Your task to perform on an android device: Go to display settings Image 0: 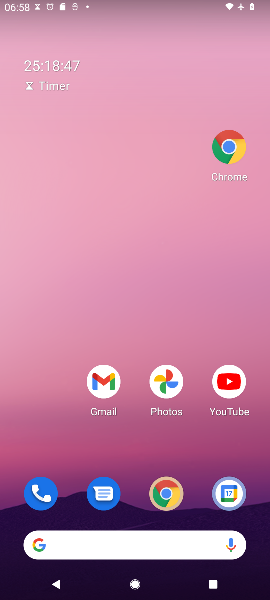
Step 0: press home button
Your task to perform on an android device: Go to display settings Image 1: 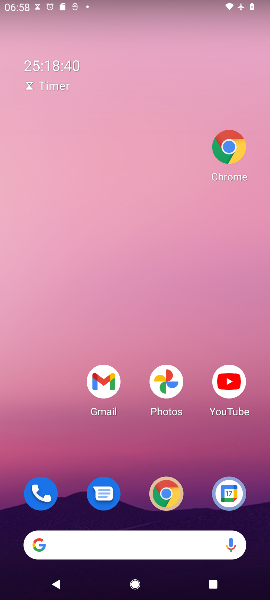
Step 1: drag from (135, 513) to (161, 108)
Your task to perform on an android device: Go to display settings Image 2: 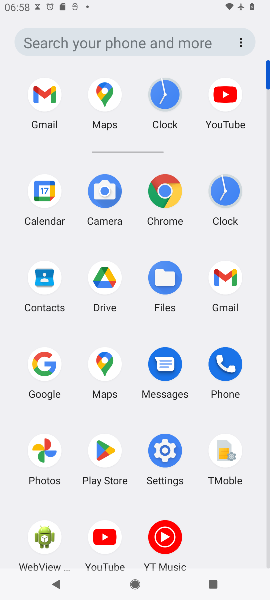
Step 2: click (161, 449)
Your task to perform on an android device: Go to display settings Image 3: 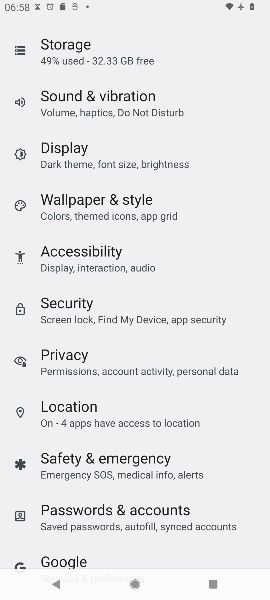
Step 3: click (65, 164)
Your task to perform on an android device: Go to display settings Image 4: 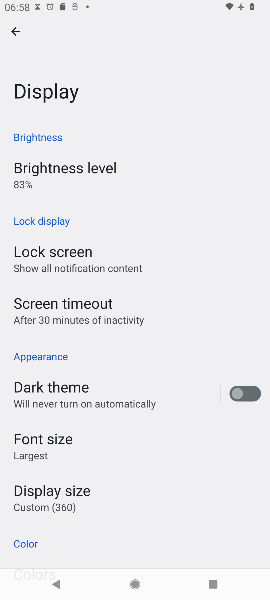
Step 4: task complete